Your task to perform on an android device: toggle notifications settings in the gmail app Image 0: 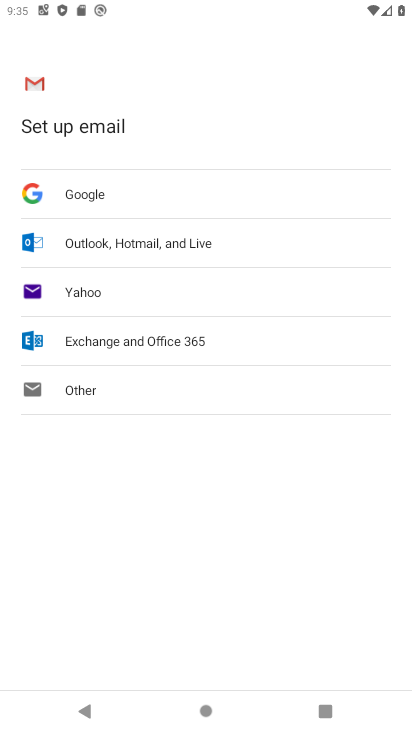
Step 0: press home button
Your task to perform on an android device: toggle notifications settings in the gmail app Image 1: 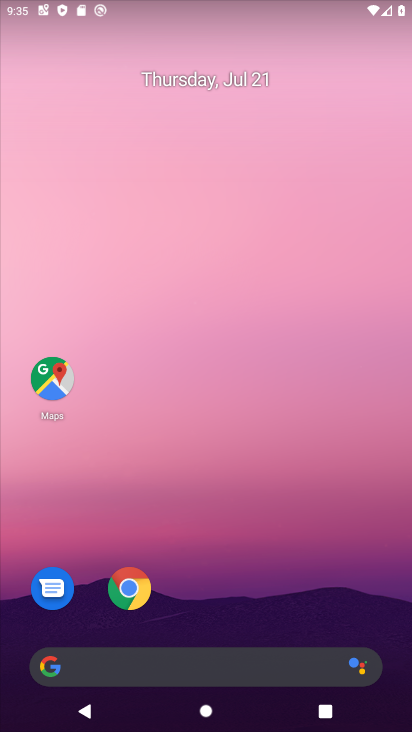
Step 1: drag from (393, 670) to (310, 23)
Your task to perform on an android device: toggle notifications settings in the gmail app Image 2: 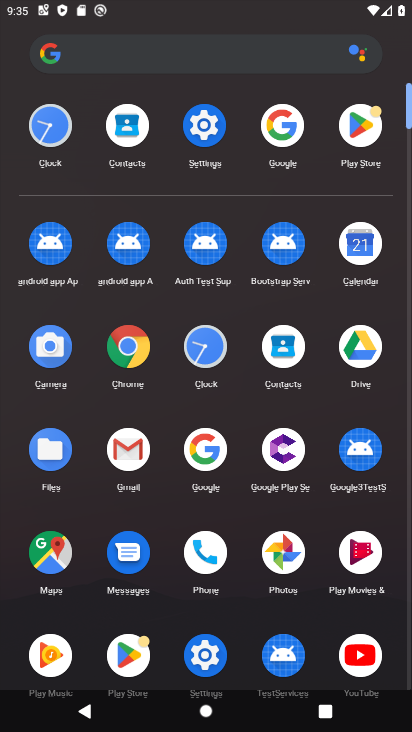
Step 2: click (132, 445)
Your task to perform on an android device: toggle notifications settings in the gmail app Image 3: 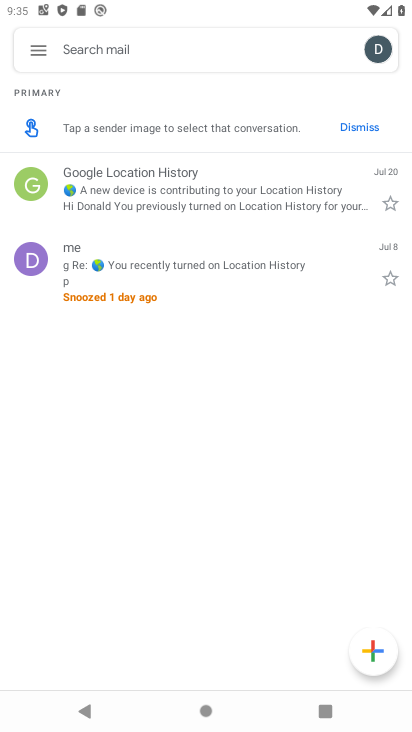
Step 3: click (39, 54)
Your task to perform on an android device: toggle notifications settings in the gmail app Image 4: 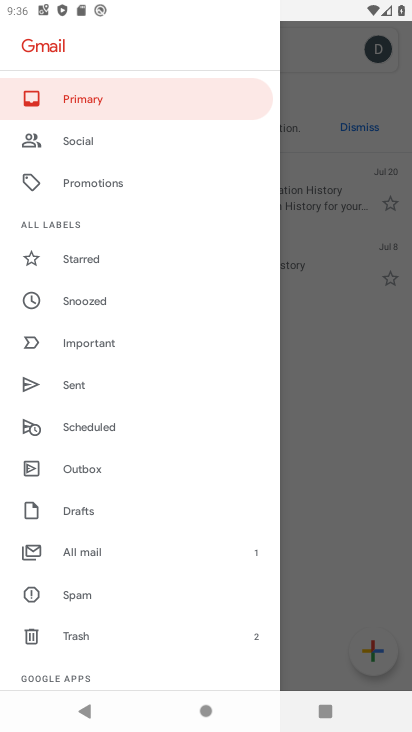
Step 4: drag from (204, 602) to (188, 296)
Your task to perform on an android device: toggle notifications settings in the gmail app Image 5: 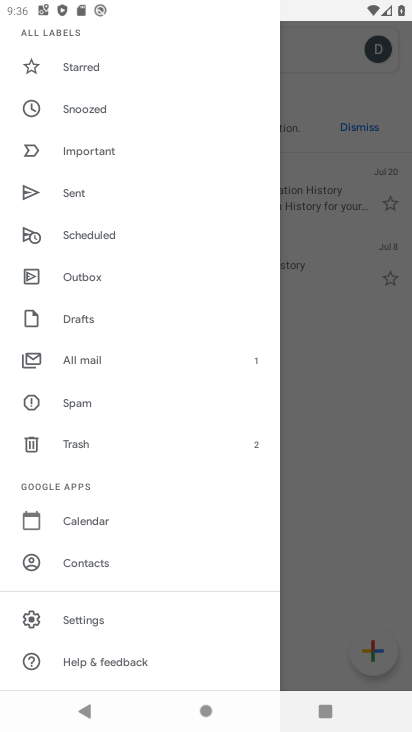
Step 5: click (85, 619)
Your task to perform on an android device: toggle notifications settings in the gmail app Image 6: 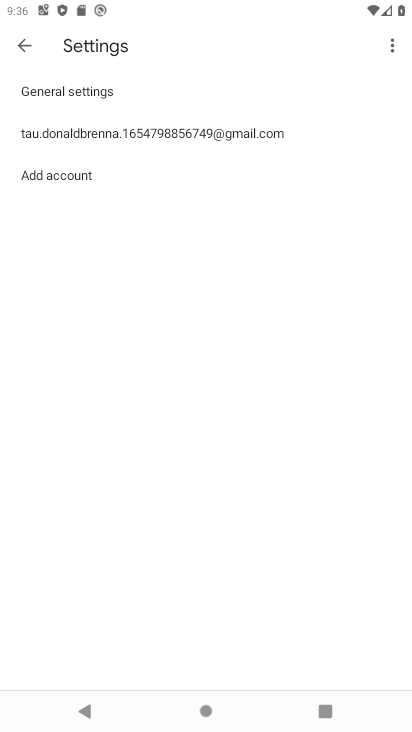
Step 6: click (159, 131)
Your task to perform on an android device: toggle notifications settings in the gmail app Image 7: 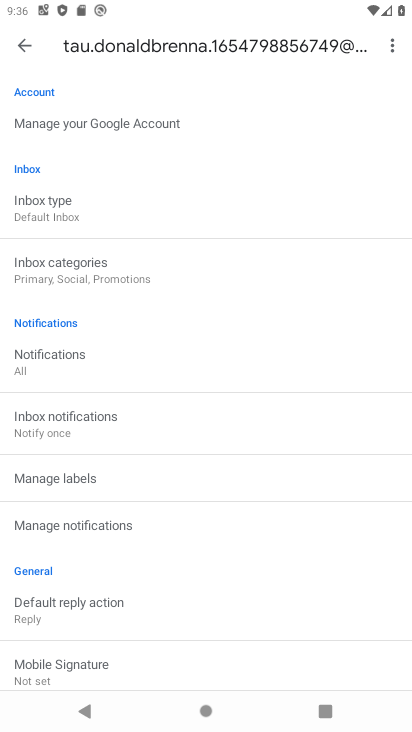
Step 7: click (66, 360)
Your task to perform on an android device: toggle notifications settings in the gmail app Image 8: 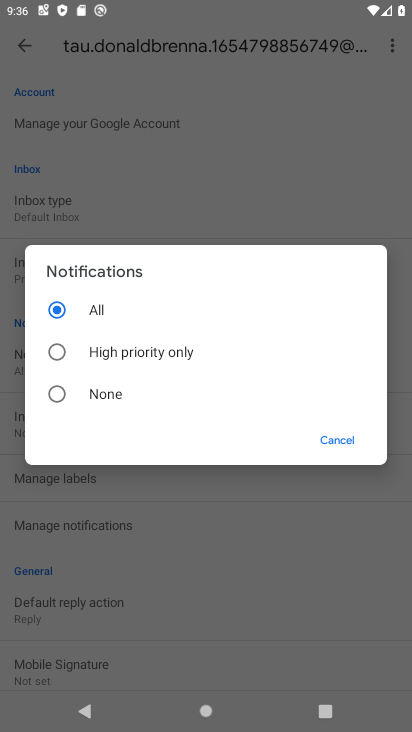
Step 8: click (72, 351)
Your task to perform on an android device: toggle notifications settings in the gmail app Image 9: 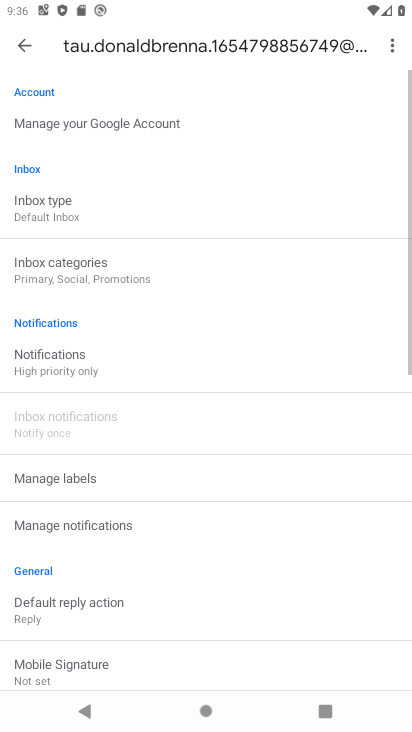
Step 9: task complete